Your task to perform on an android device: turn off smart reply in the gmail app Image 0: 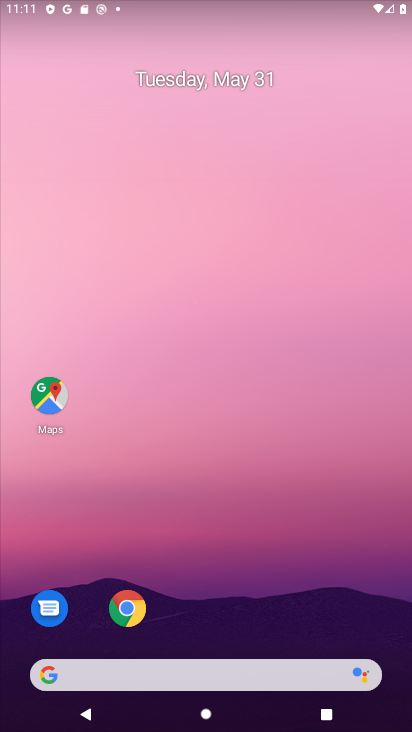
Step 0: press home button
Your task to perform on an android device: turn off smart reply in the gmail app Image 1: 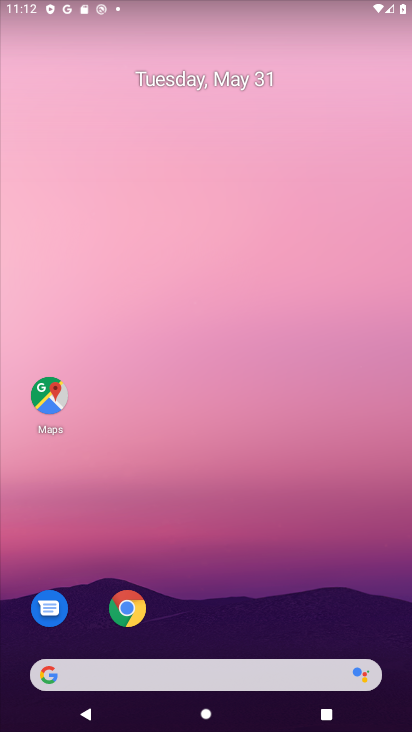
Step 1: drag from (289, 609) to (297, 3)
Your task to perform on an android device: turn off smart reply in the gmail app Image 2: 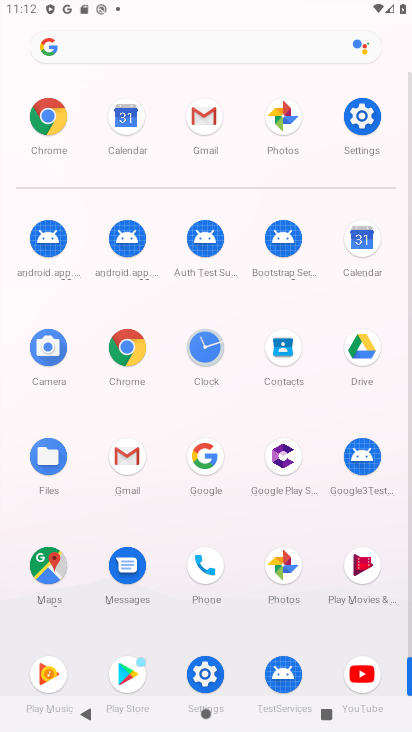
Step 2: click (185, 92)
Your task to perform on an android device: turn off smart reply in the gmail app Image 3: 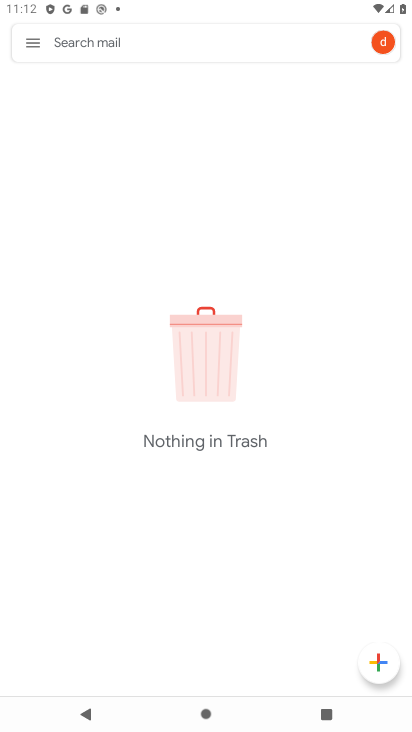
Step 3: click (42, 14)
Your task to perform on an android device: turn off smart reply in the gmail app Image 4: 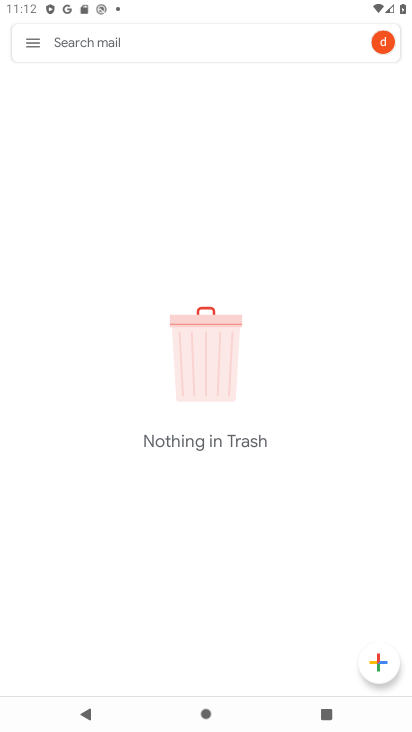
Step 4: click (26, 51)
Your task to perform on an android device: turn off smart reply in the gmail app Image 5: 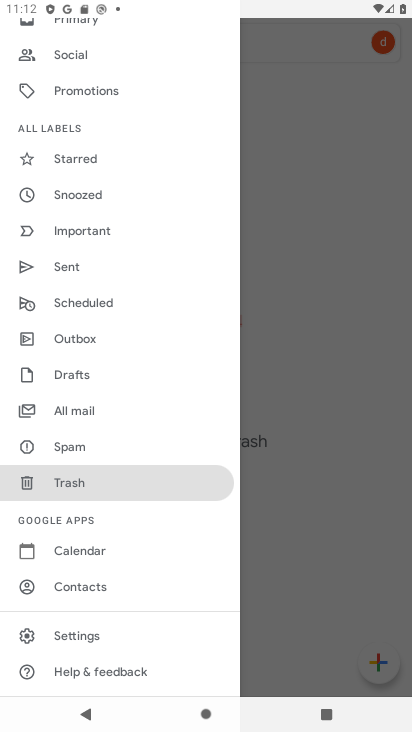
Step 5: click (100, 646)
Your task to perform on an android device: turn off smart reply in the gmail app Image 6: 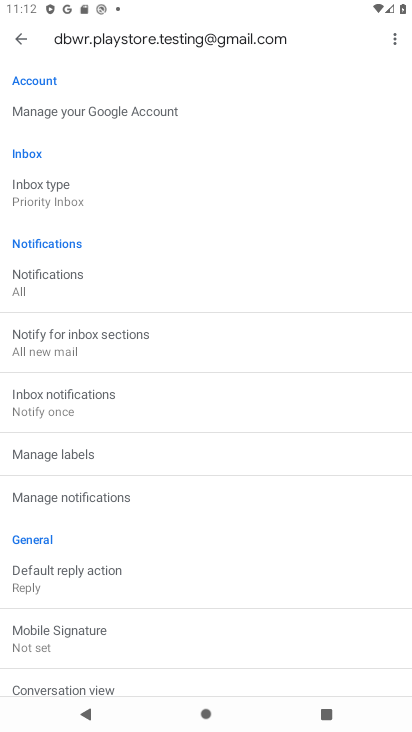
Step 6: drag from (102, 579) to (226, 172)
Your task to perform on an android device: turn off smart reply in the gmail app Image 7: 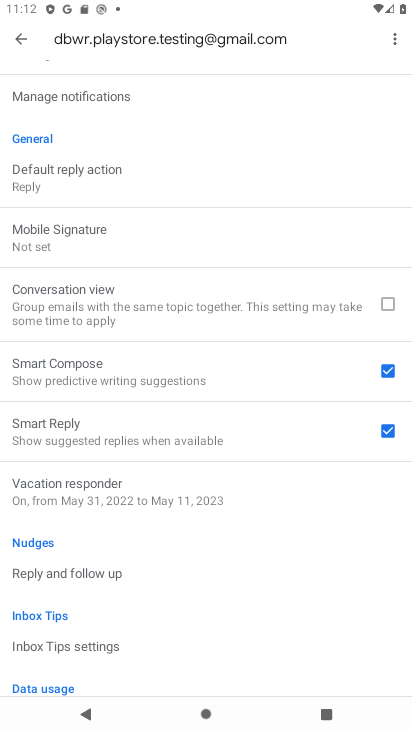
Step 7: click (98, 445)
Your task to perform on an android device: turn off smart reply in the gmail app Image 8: 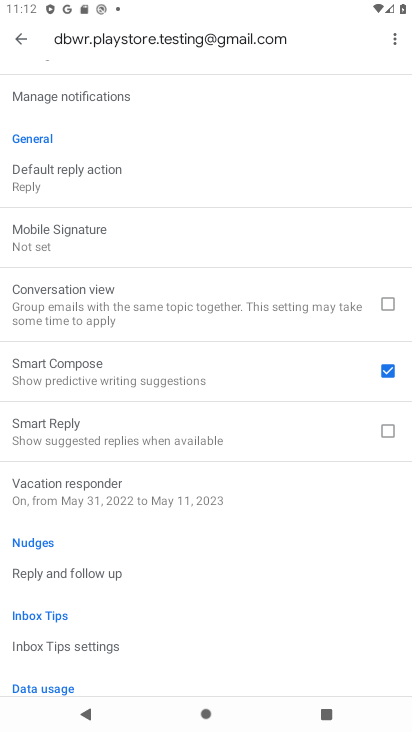
Step 8: task complete